Your task to perform on an android device: View the shopping cart on newegg. Image 0: 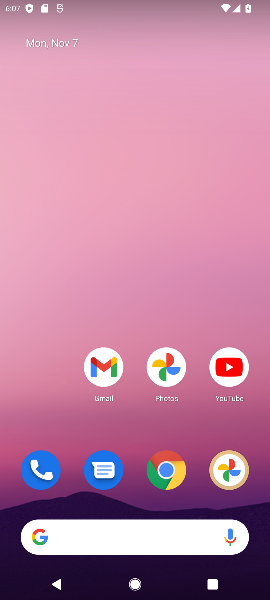
Step 0: click (171, 472)
Your task to perform on an android device: View the shopping cart on newegg. Image 1: 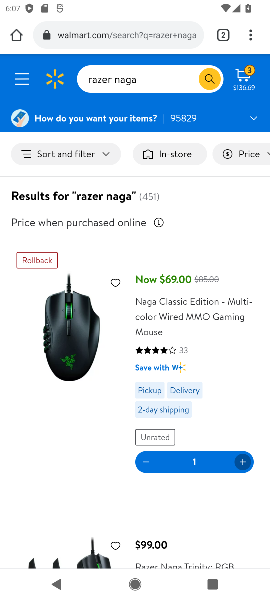
Step 1: click (138, 33)
Your task to perform on an android device: View the shopping cart on newegg. Image 2: 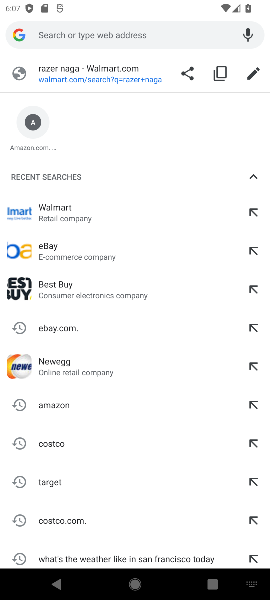
Step 2: click (52, 378)
Your task to perform on an android device: View the shopping cart on newegg. Image 3: 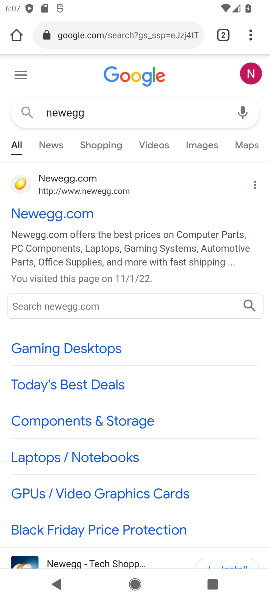
Step 3: click (82, 216)
Your task to perform on an android device: View the shopping cart on newegg. Image 4: 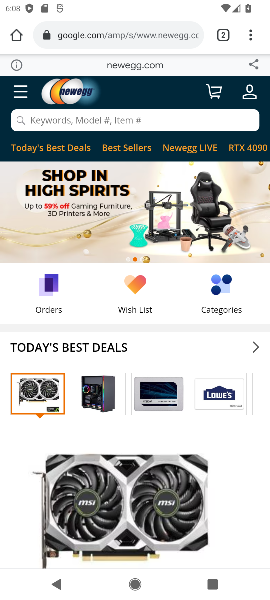
Step 4: click (209, 96)
Your task to perform on an android device: View the shopping cart on newegg. Image 5: 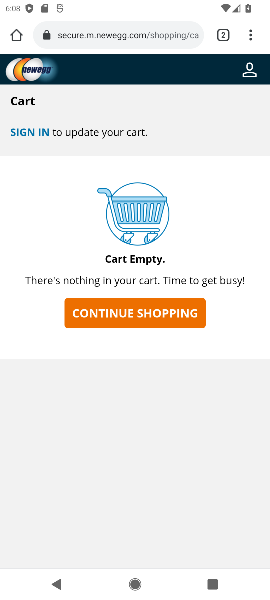
Step 5: task complete